Your task to perform on an android device: toggle notification dots Image 0: 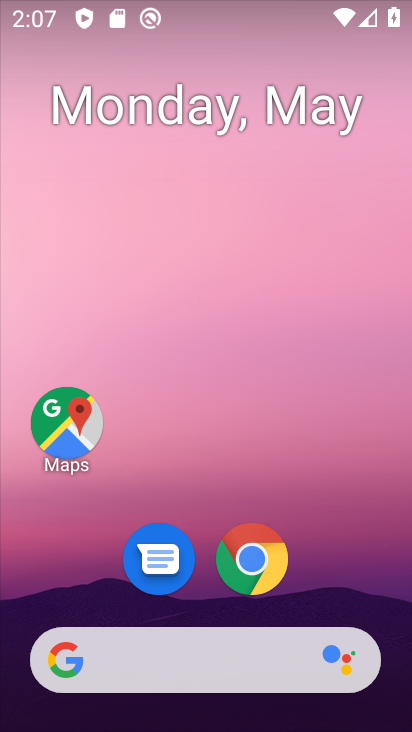
Step 0: press home button
Your task to perform on an android device: toggle notification dots Image 1: 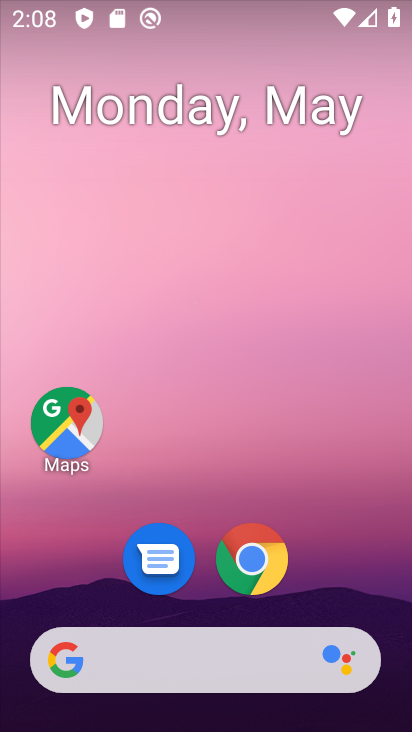
Step 1: drag from (317, 707) to (263, 197)
Your task to perform on an android device: toggle notification dots Image 2: 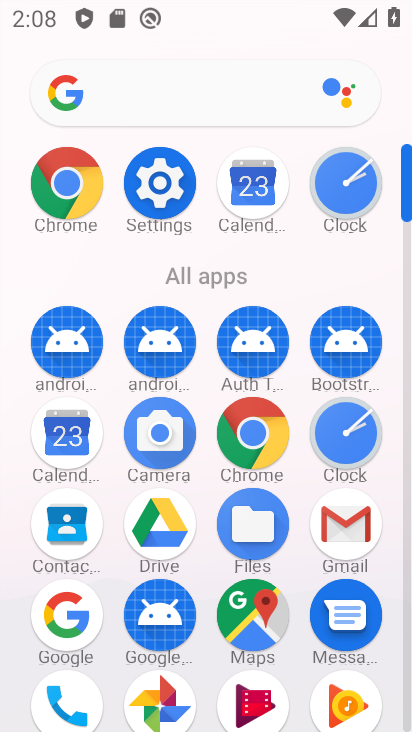
Step 2: click (181, 199)
Your task to perform on an android device: toggle notification dots Image 3: 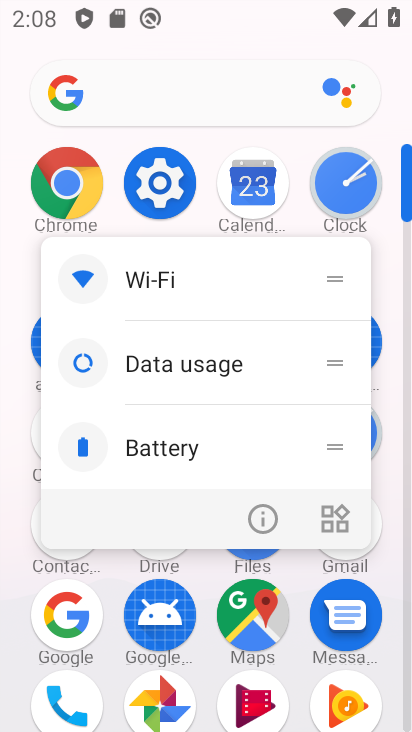
Step 3: click (181, 202)
Your task to perform on an android device: toggle notification dots Image 4: 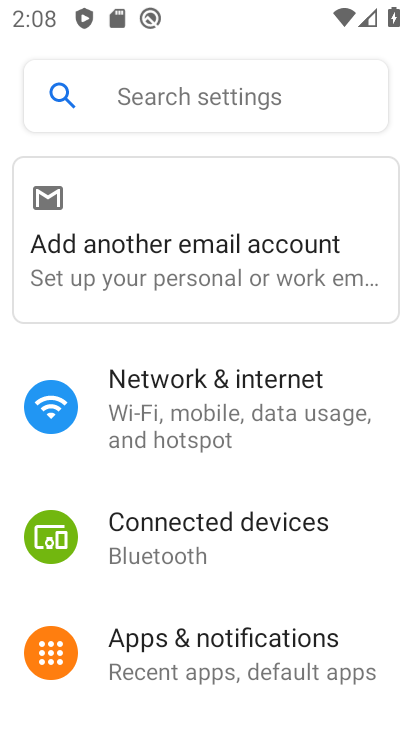
Step 4: click (204, 93)
Your task to perform on an android device: toggle notification dots Image 5: 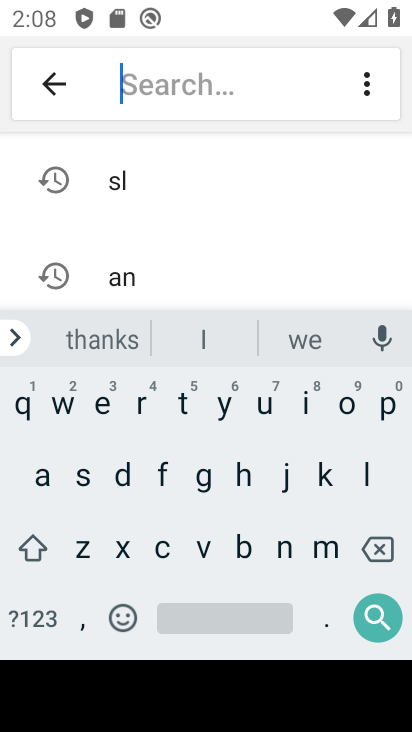
Step 5: click (119, 471)
Your task to perform on an android device: toggle notification dots Image 6: 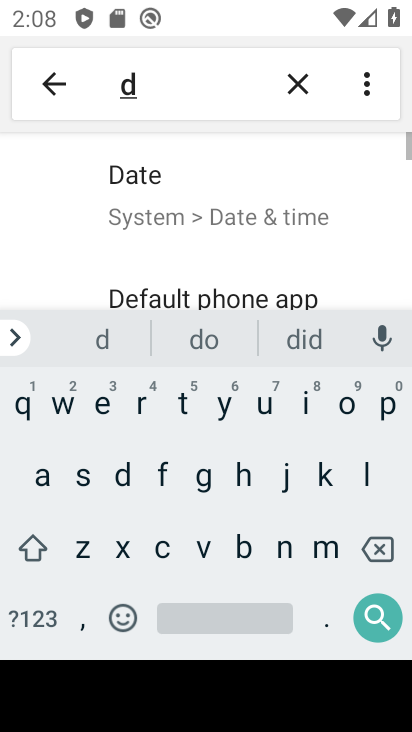
Step 6: click (355, 424)
Your task to perform on an android device: toggle notification dots Image 7: 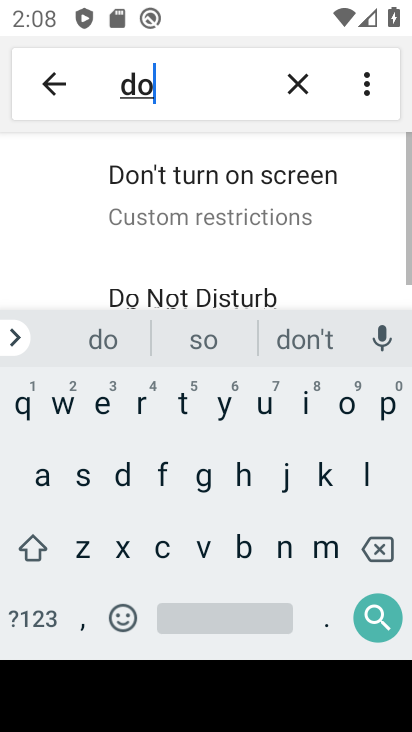
Step 7: click (175, 415)
Your task to perform on an android device: toggle notification dots Image 8: 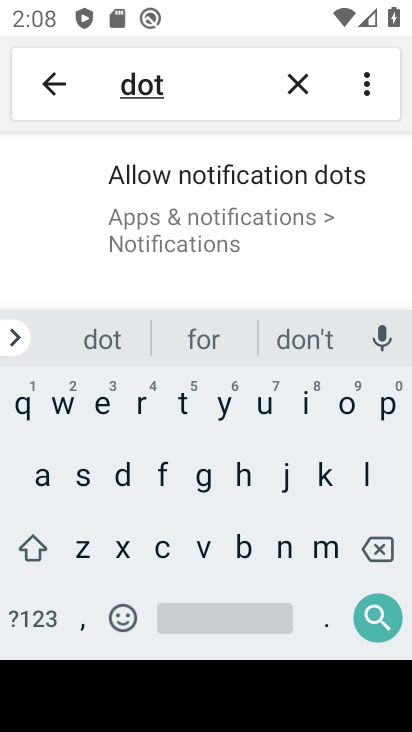
Step 8: click (212, 177)
Your task to perform on an android device: toggle notification dots Image 9: 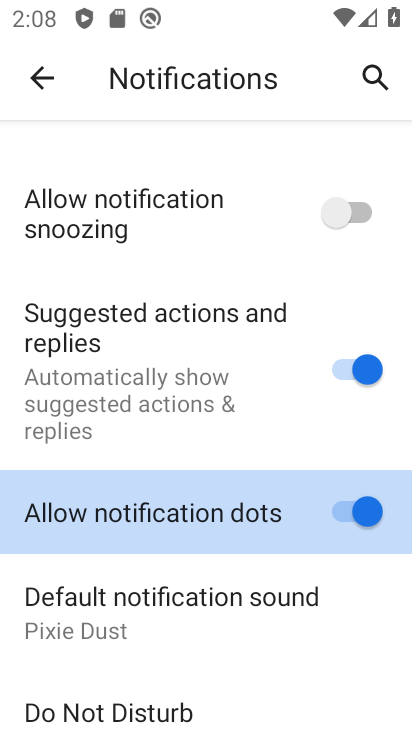
Step 9: task complete